Your task to perform on an android device: Check the weather Image 0: 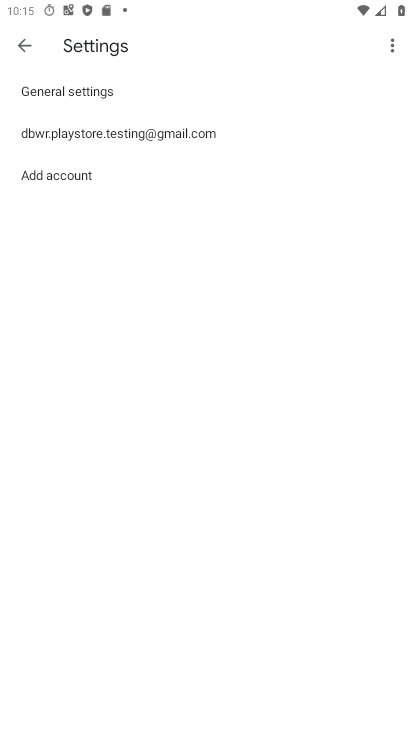
Step 0: press home button
Your task to perform on an android device: Check the weather Image 1: 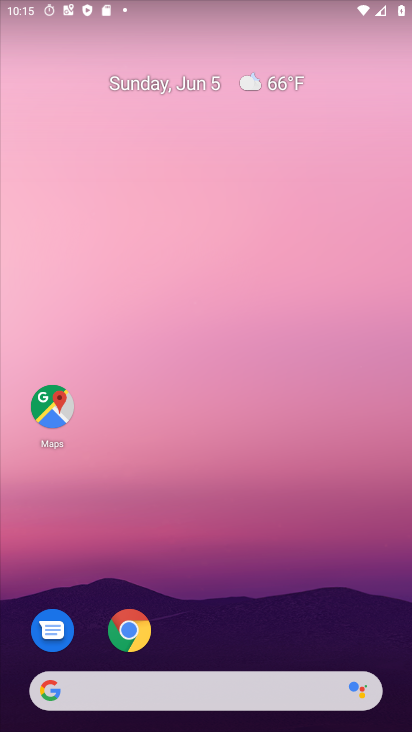
Step 1: drag from (207, 725) to (199, 5)
Your task to perform on an android device: Check the weather Image 2: 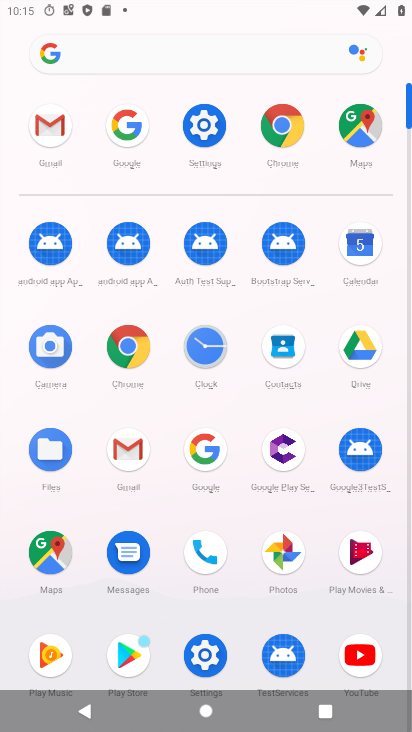
Step 2: click (208, 454)
Your task to perform on an android device: Check the weather Image 3: 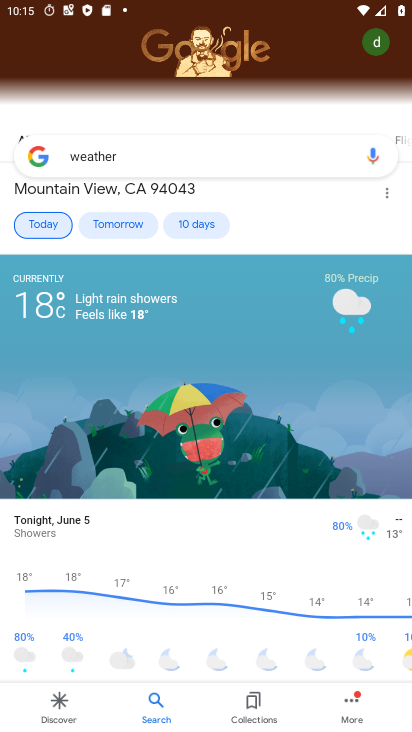
Step 3: click (33, 226)
Your task to perform on an android device: Check the weather Image 4: 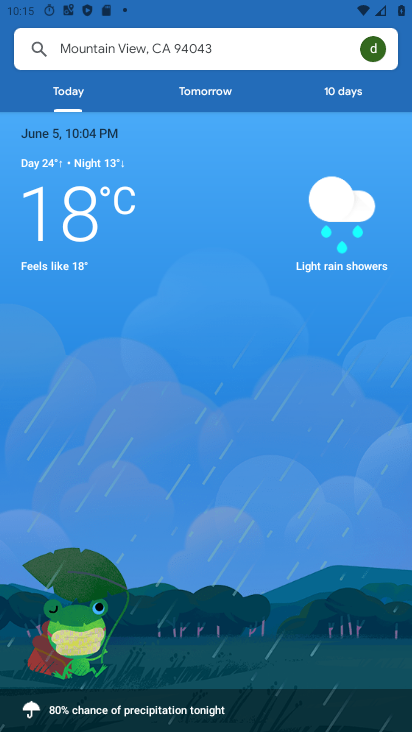
Step 4: task complete